Your task to perform on an android device: toggle priority inbox in the gmail app Image 0: 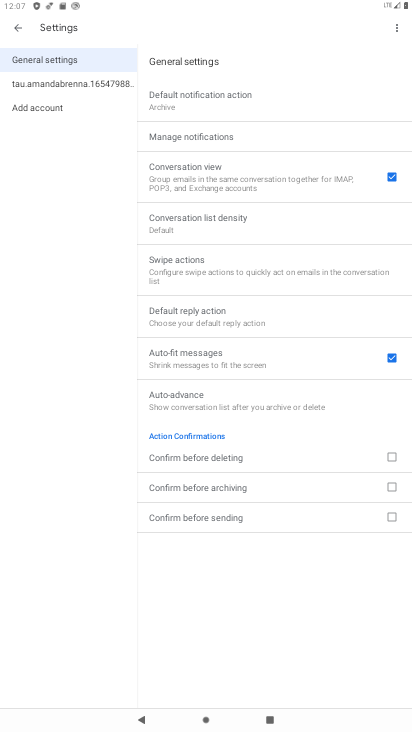
Step 0: press home button
Your task to perform on an android device: toggle priority inbox in the gmail app Image 1: 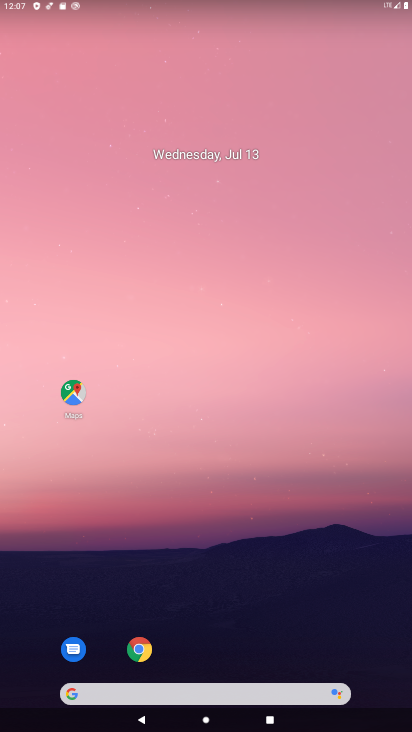
Step 1: drag from (320, 623) to (247, 180)
Your task to perform on an android device: toggle priority inbox in the gmail app Image 2: 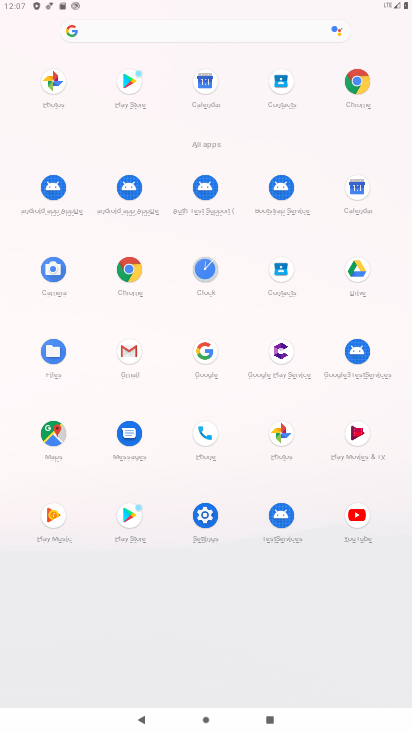
Step 2: click (125, 353)
Your task to perform on an android device: toggle priority inbox in the gmail app Image 3: 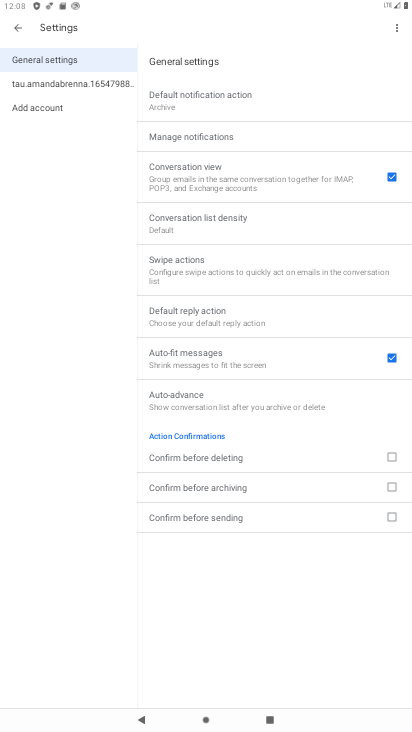
Step 3: click (86, 78)
Your task to perform on an android device: toggle priority inbox in the gmail app Image 4: 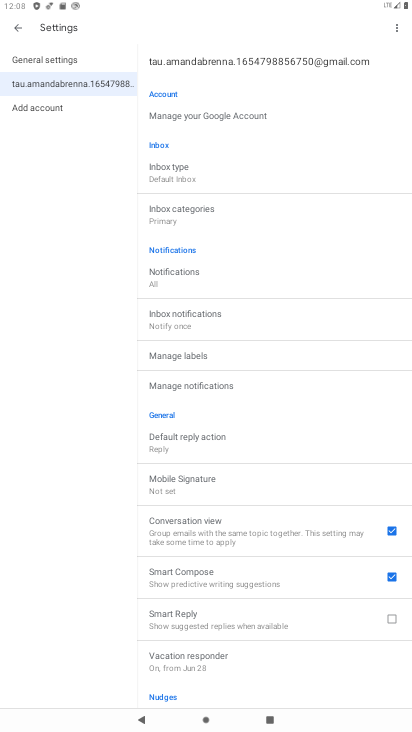
Step 4: click (217, 171)
Your task to perform on an android device: toggle priority inbox in the gmail app Image 5: 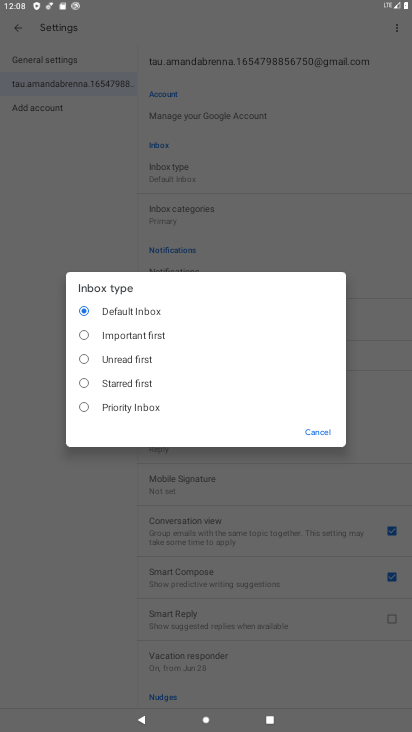
Step 5: click (132, 410)
Your task to perform on an android device: toggle priority inbox in the gmail app Image 6: 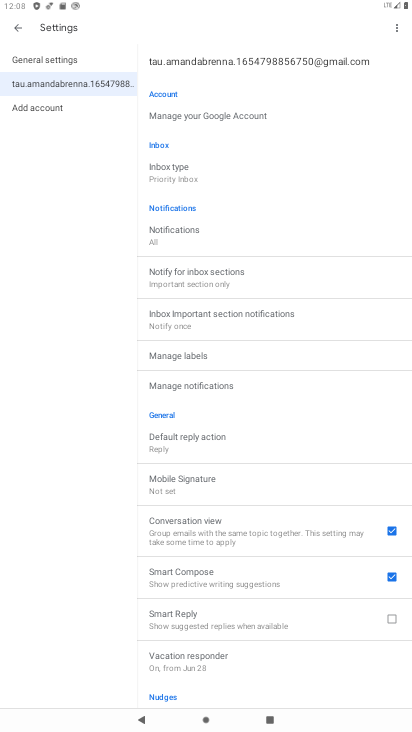
Step 6: task complete